Your task to perform on an android device: delete the emails in spam in the gmail app Image 0: 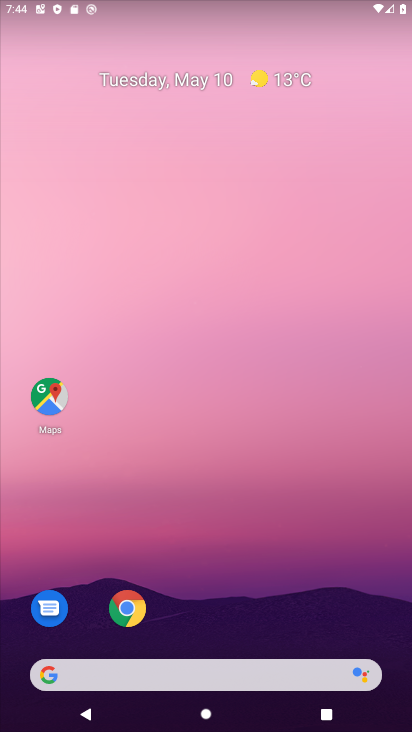
Step 0: drag from (200, 513) to (154, 205)
Your task to perform on an android device: delete the emails in spam in the gmail app Image 1: 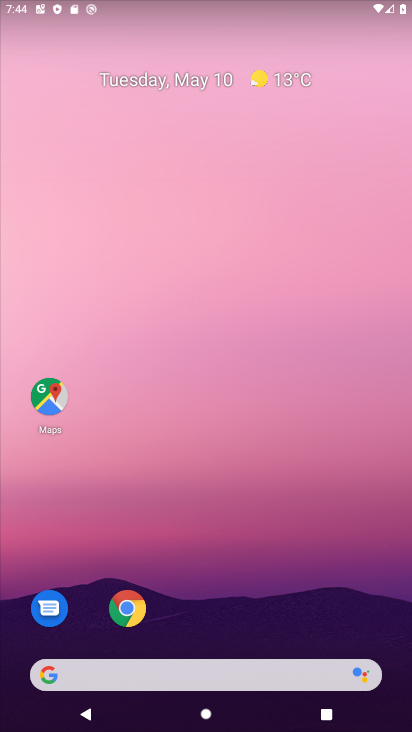
Step 1: drag from (196, 594) to (235, 109)
Your task to perform on an android device: delete the emails in spam in the gmail app Image 2: 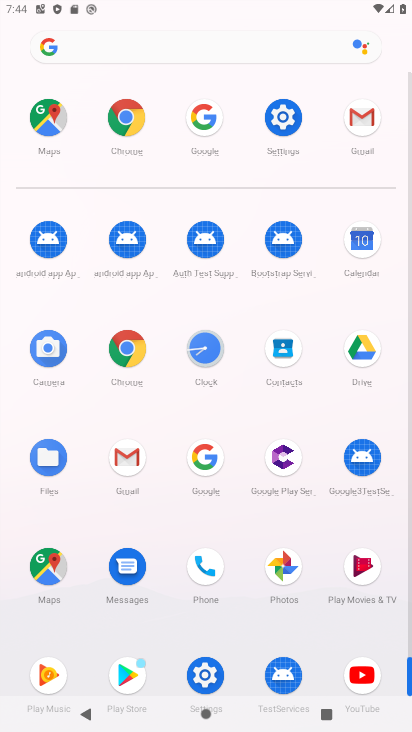
Step 2: click (358, 134)
Your task to perform on an android device: delete the emails in spam in the gmail app Image 3: 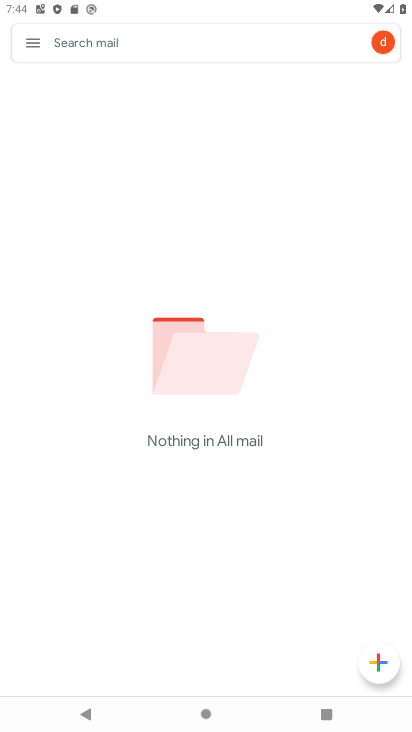
Step 3: click (35, 41)
Your task to perform on an android device: delete the emails in spam in the gmail app Image 4: 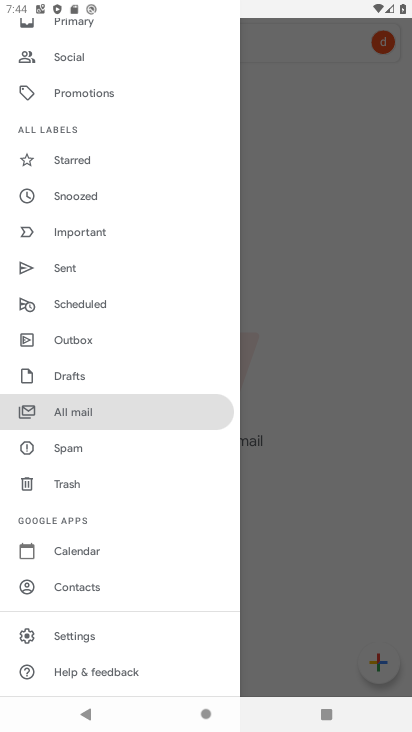
Step 4: click (61, 452)
Your task to perform on an android device: delete the emails in spam in the gmail app Image 5: 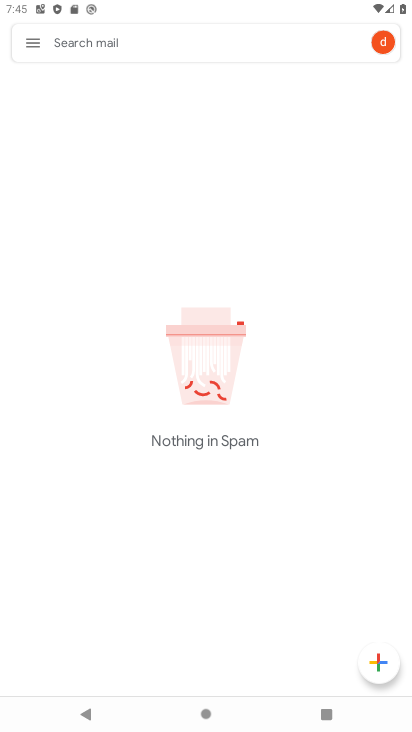
Step 5: task complete